Your task to perform on an android device: Search for the best rated circular saw on Lowes.com Image 0: 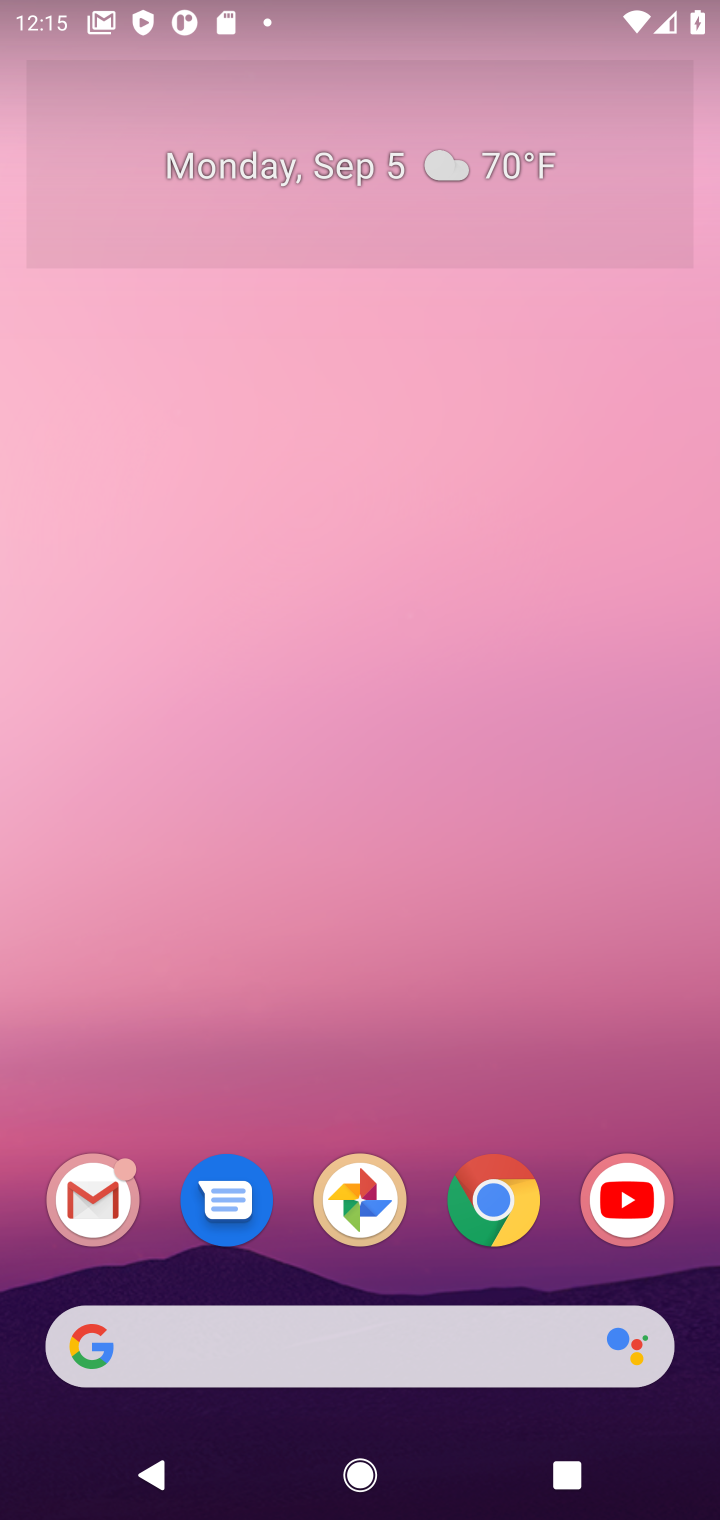
Step 0: click (488, 1233)
Your task to perform on an android device: Search for the best rated circular saw on Lowes.com Image 1: 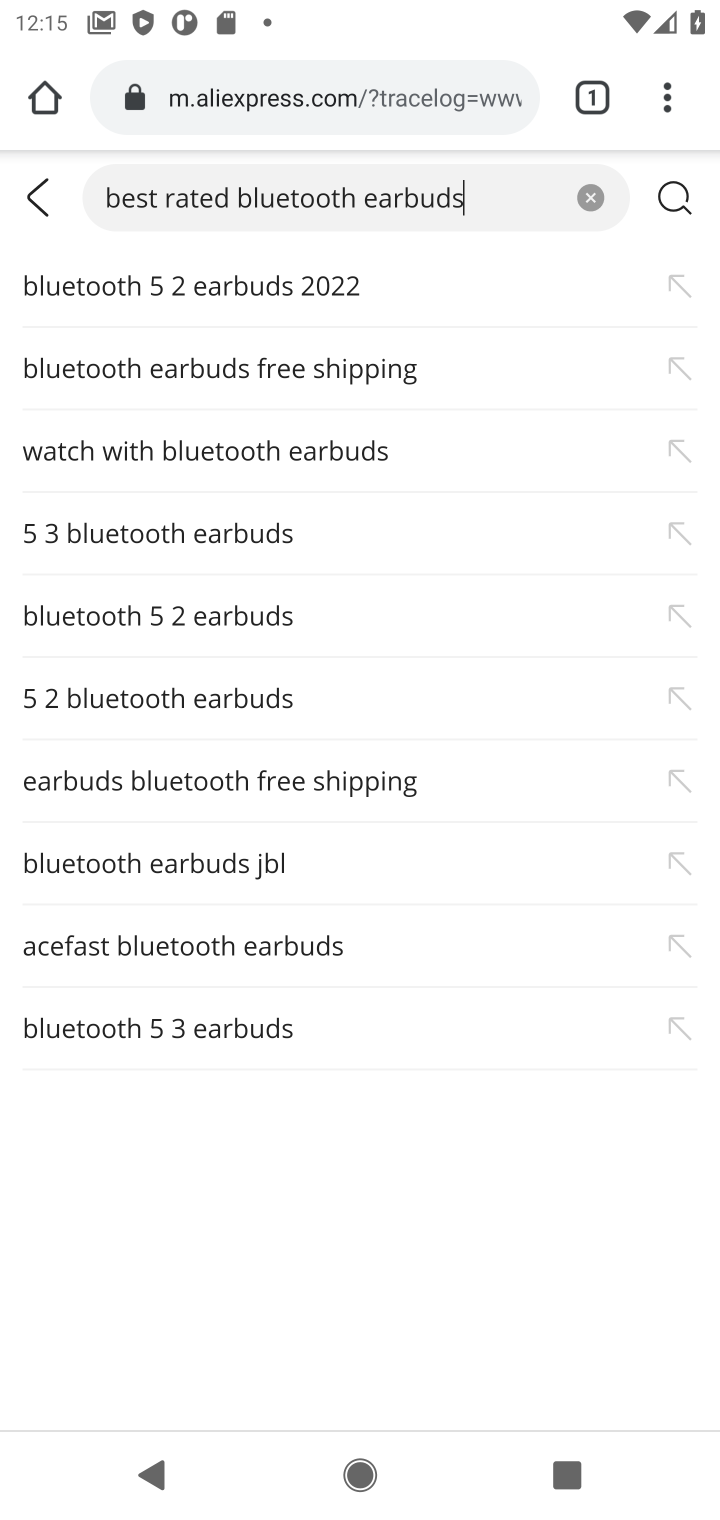
Step 1: click (469, 92)
Your task to perform on an android device: Search for the best rated circular saw on Lowes.com Image 2: 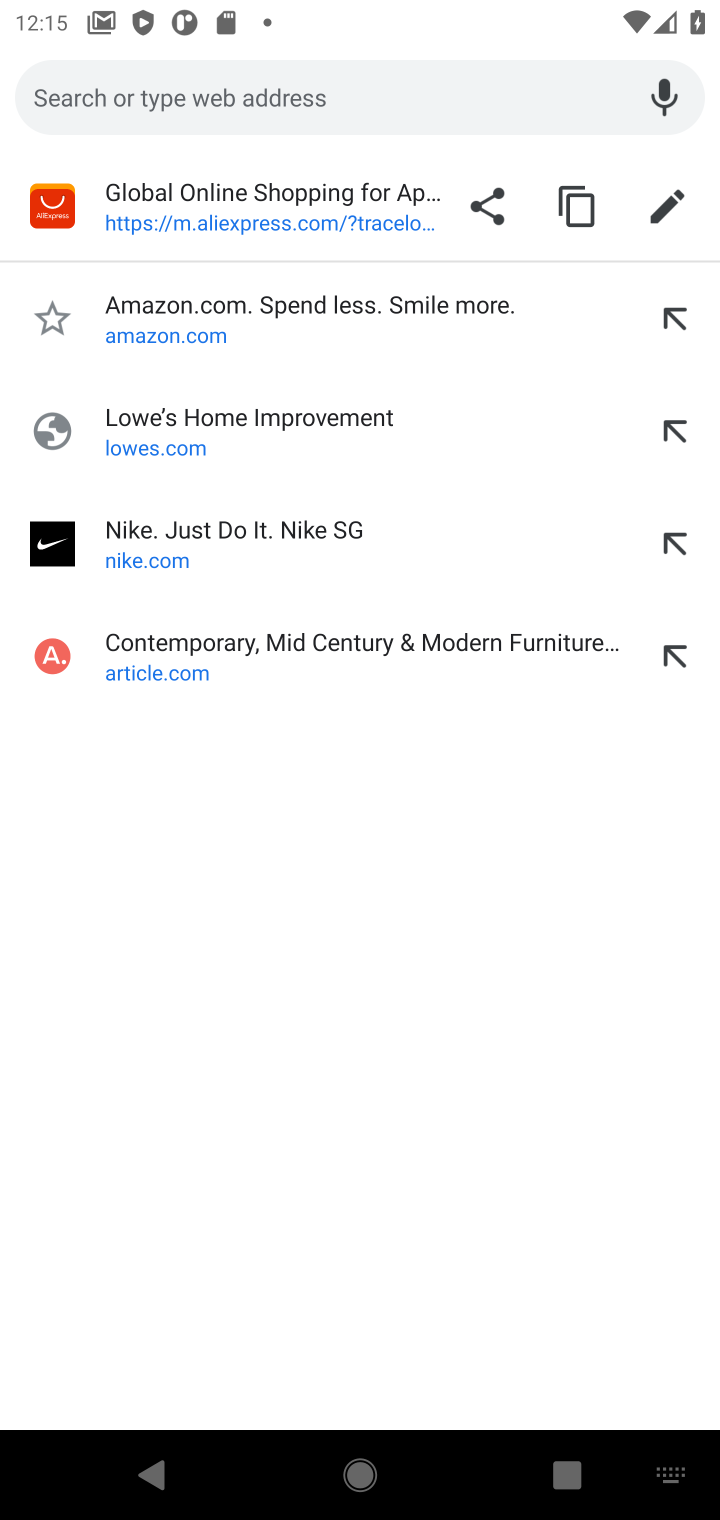
Step 2: type "lowes.com"
Your task to perform on an android device: Search for the best rated circular saw on Lowes.com Image 3: 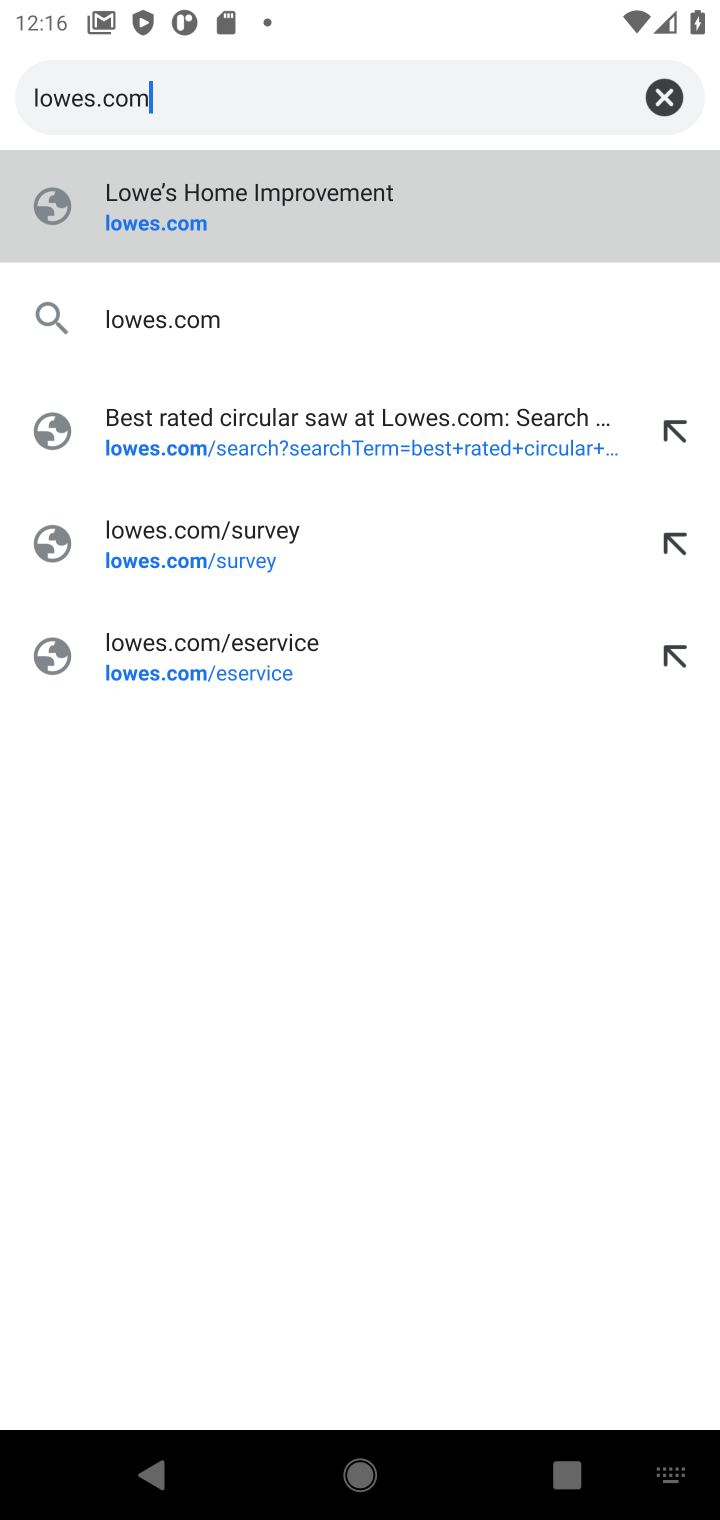
Step 3: click (256, 224)
Your task to perform on an android device: Search for the best rated circular saw on Lowes.com Image 4: 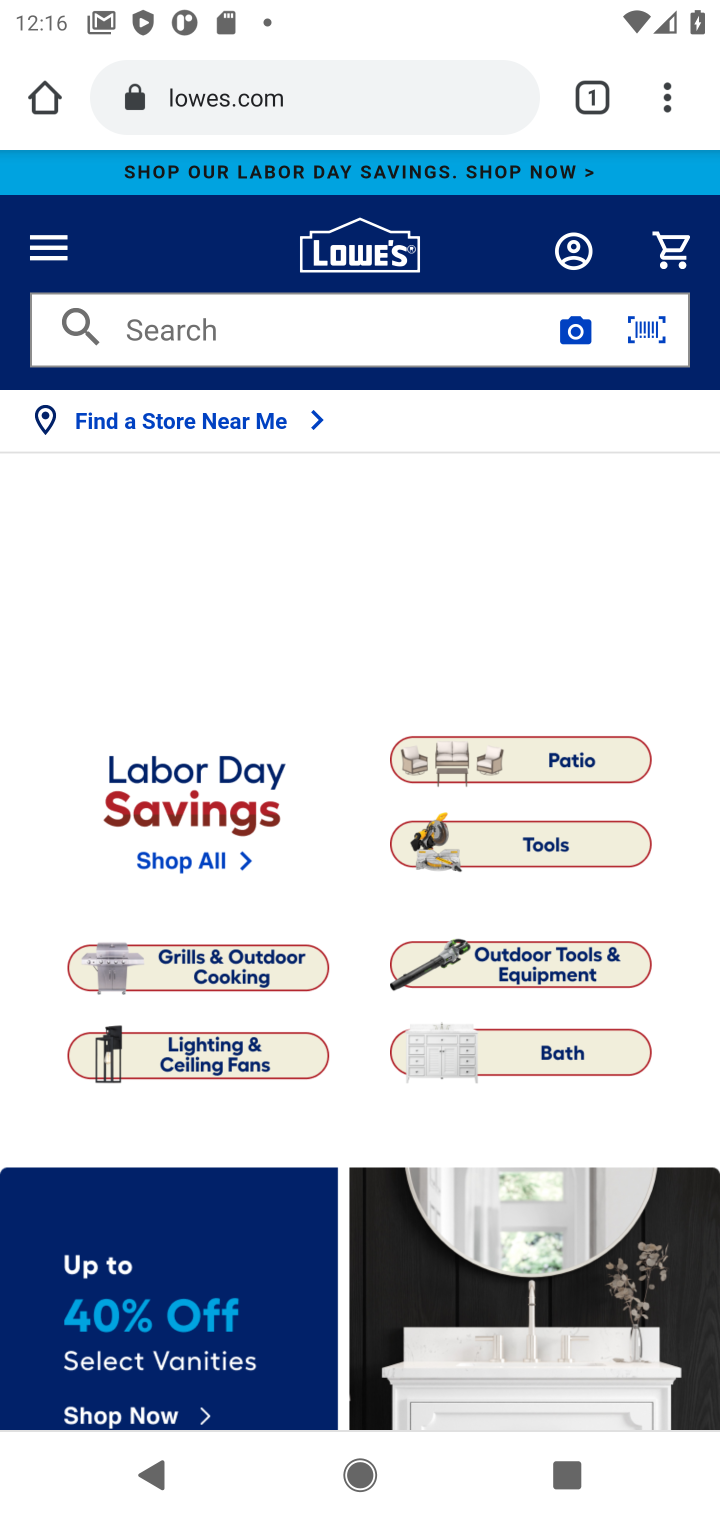
Step 4: click (435, 324)
Your task to perform on an android device: Search for the best rated circular saw on Lowes.com Image 5: 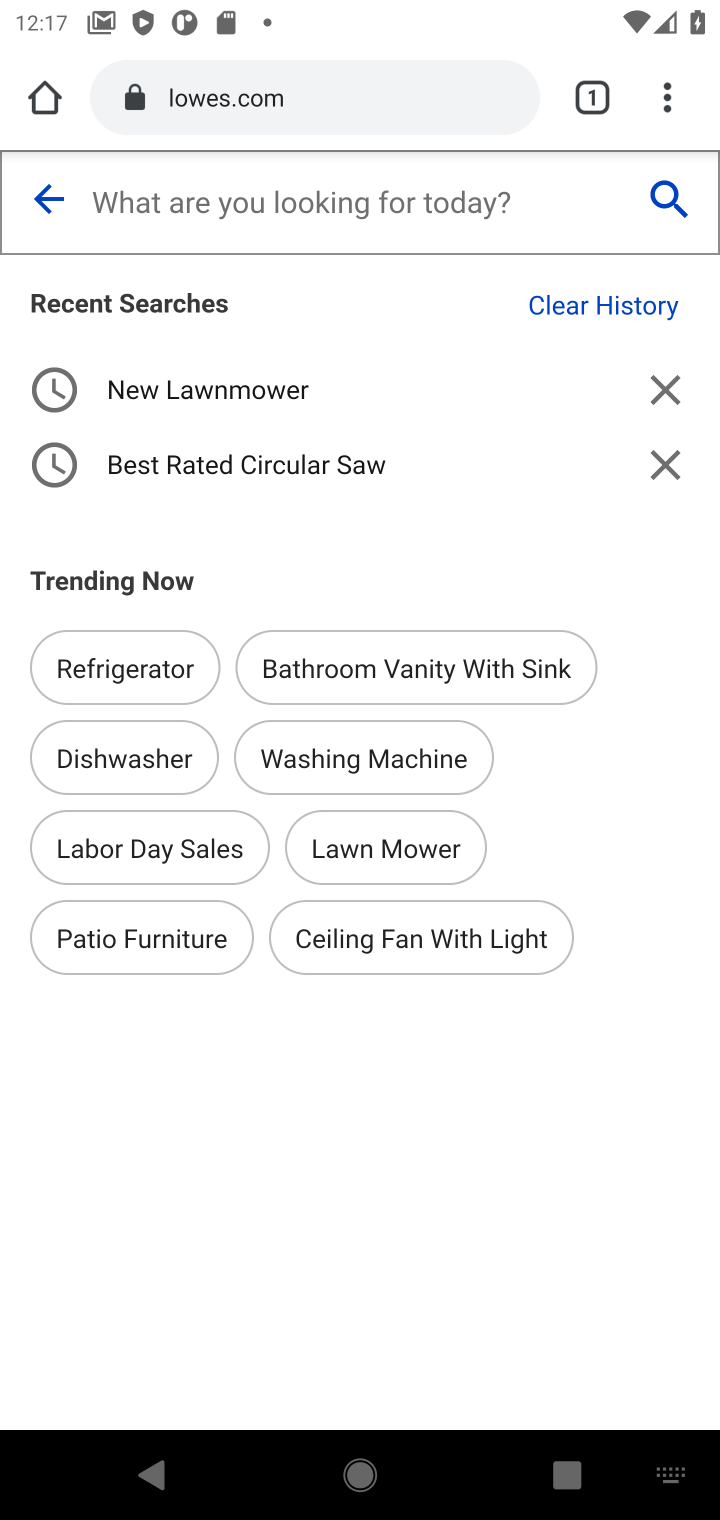
Step 5: type "best rated circular saw"
Your task to perform on an android device: Search for the best rated circular saw on Lowes.com Image 6: 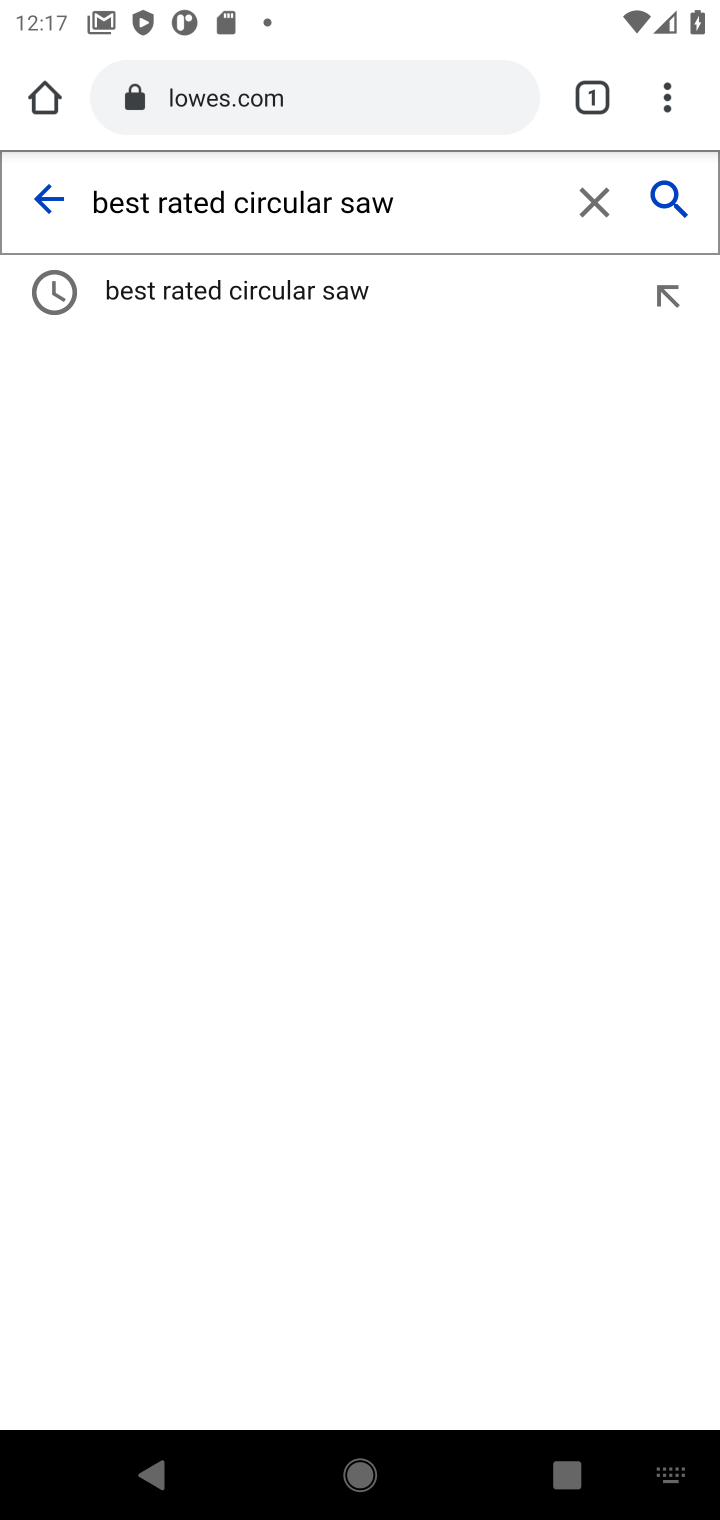
Step 6: click (232, 303)
Your task to perform on an android device: Search for the best rated circular saw on Lowes.com Image 7: 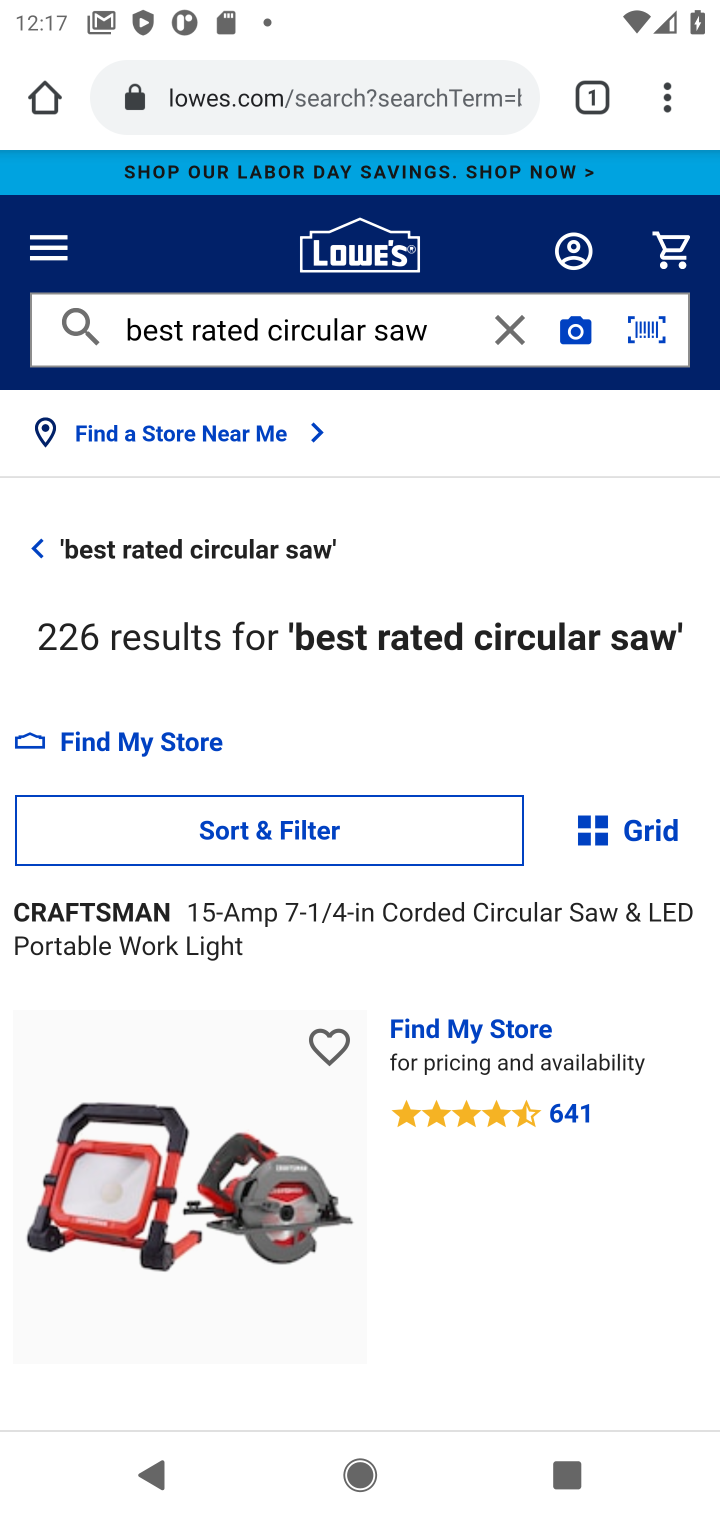
Step 7: task complete